Your task to perform on an android device: Open privacy settings Image 0: 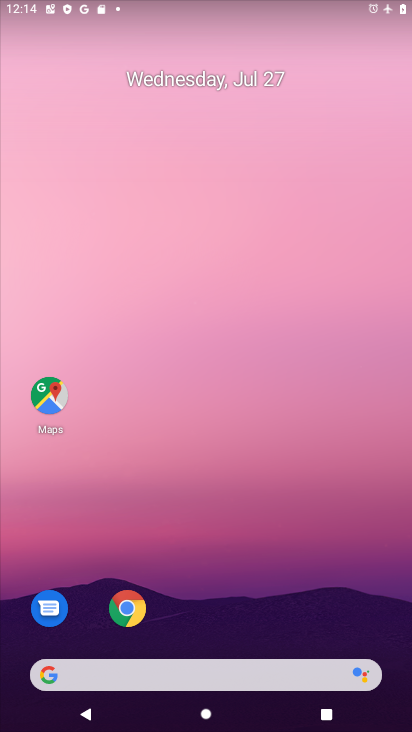
Step 0: drag from (206, 670) to (193, 57)
Your task to perform on an android device: Open privacy settings Image 1: 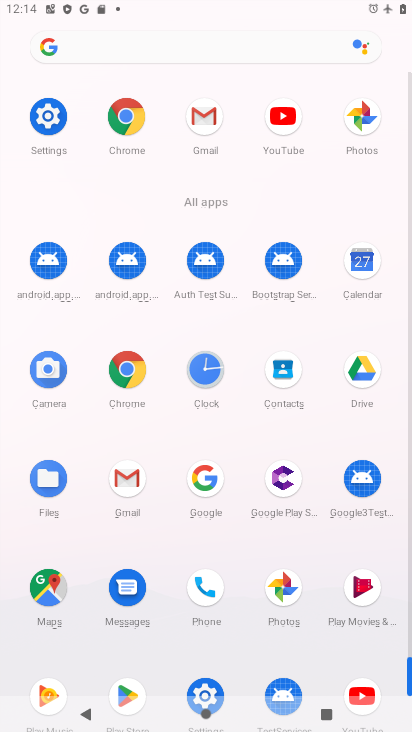
Step 1: click (48, 115)
Your task to perform on an android device: Open privacy settings Image 2: 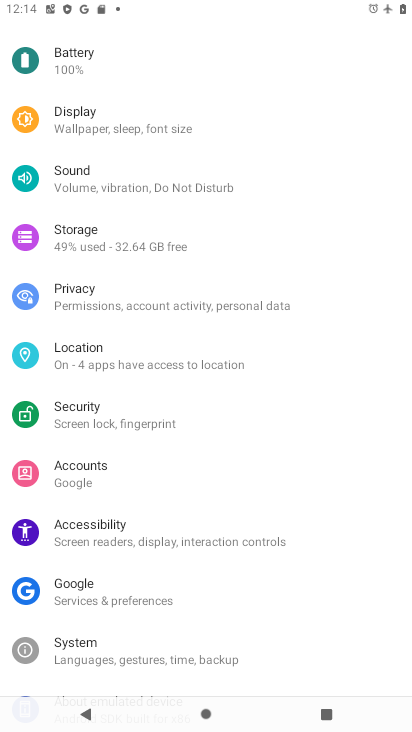
Step 2: click (109, 298)
Your task to perform on an android device: Open privacy settings Image 3: 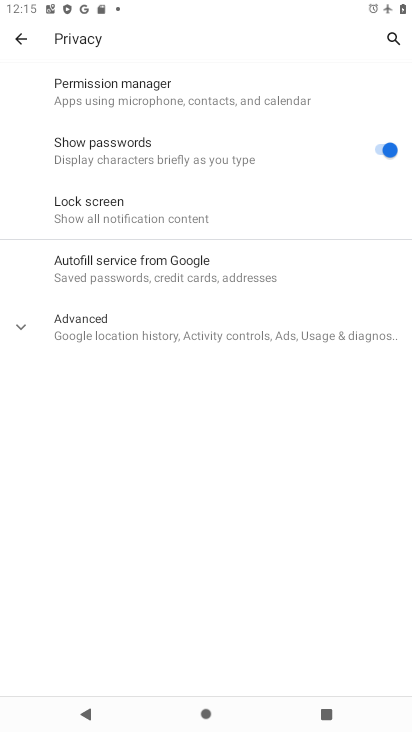
Step 3: task complete